Your task to perform on an android device: Open calendar and show me the first week of next month Image 0: 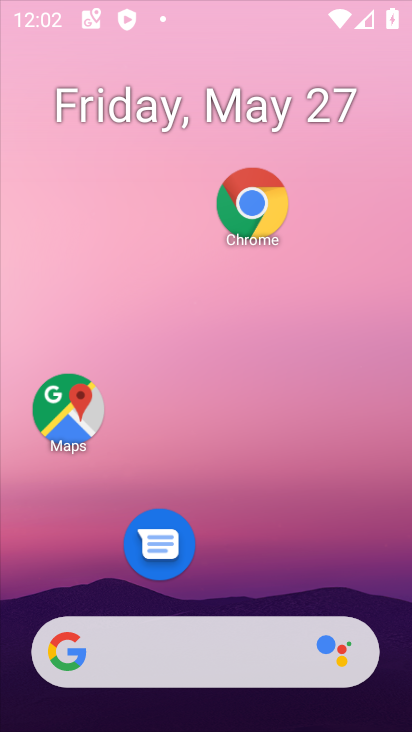
Step 0: click (284, 647)
Your task to perform on an android device: Open calendar and show me the first week of next month Image 1: 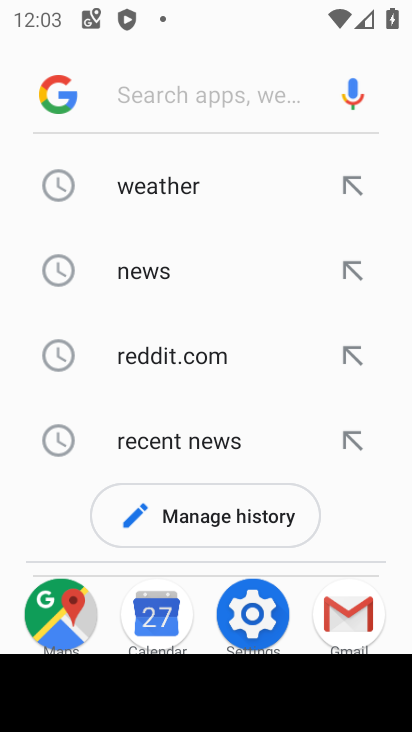
Step 1: press home button
Your task to perform on an android device: Open calendar and show me the first week of next month Image 2: 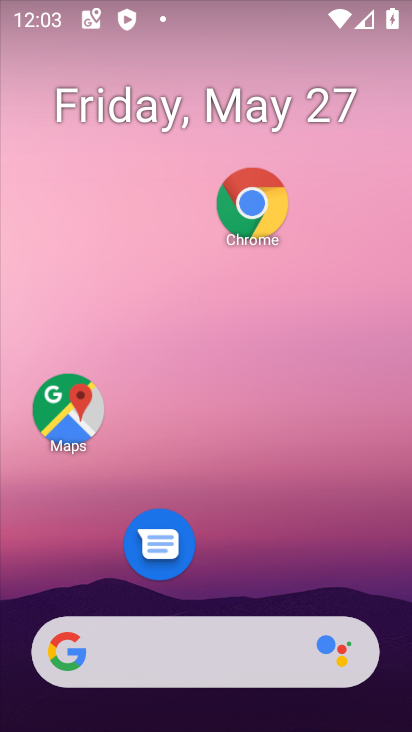
Step 2: drag from (215, 597) to (168, 143)
Your task to perform on an android device: Open calendar and show me the first week of next month Image 3: 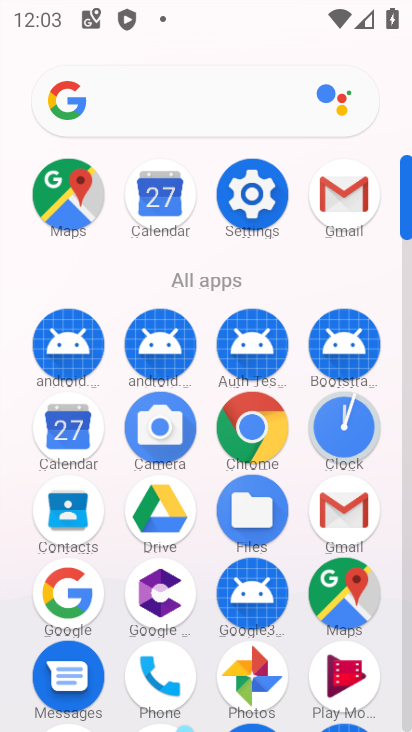
Step 3: click (74, 446)
Your task to perform on an android device: Open calendar and show me the first week of next month Image 4: 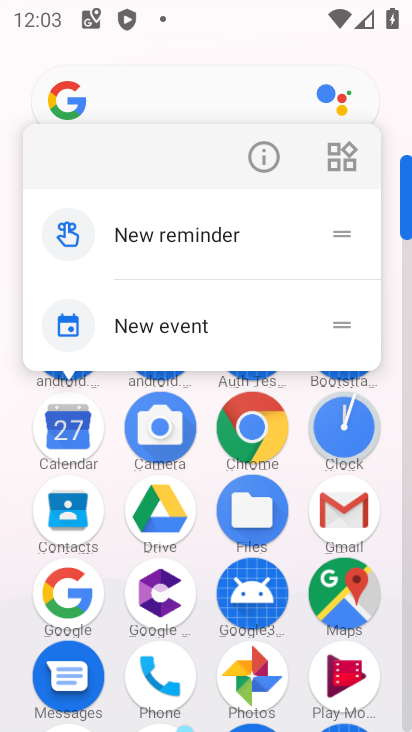
Step 4: click (244, 131)
Your task to perform on an android device: Open calendar and show me the first week of next month Image 5: 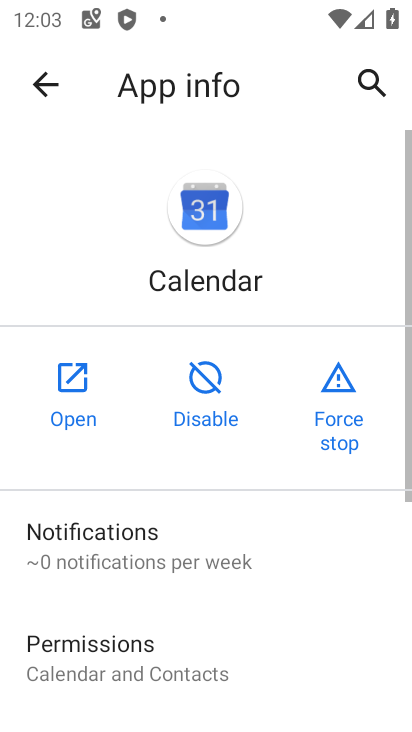
Step 5: click (77, 379)
Your task to perform on an android device: Open calendar and show me the first week of next month Image 6: 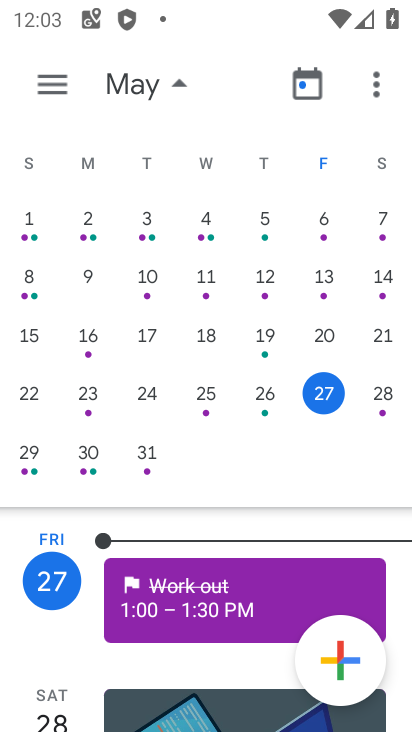
Step 6: drag from (387, 262) to (86, 314)
Your task to perform on an android device: Open calendar and show me the first week of next month Image 7: 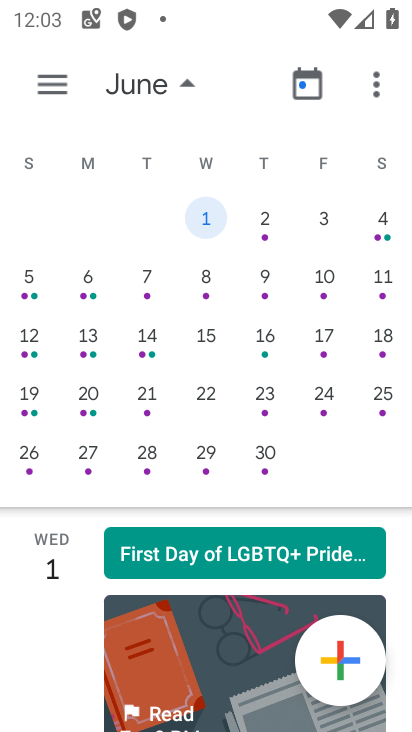
Step 7: click (270, 221)
Your task to perform on an android device: Open calendar and show me the first week of next month Image 8: 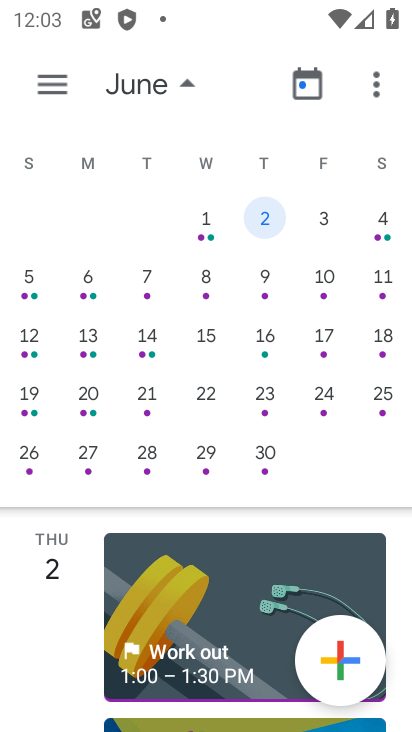
Step 8: task complete